Your task to perform on an android device: What is the news today? Image 0: 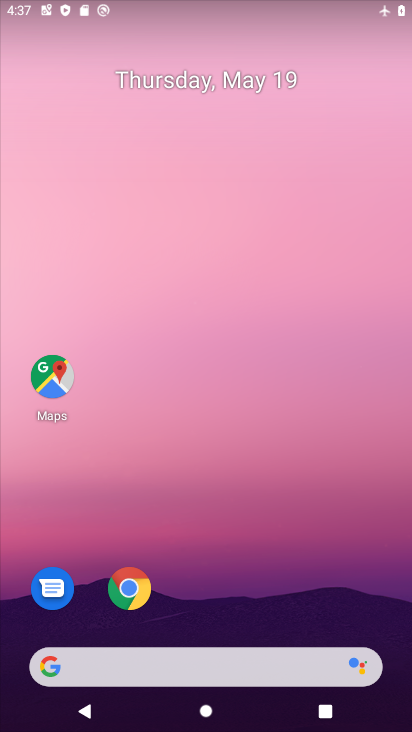
Step 0: click (164, 667)
Your task to perform on an android device: What is the news today? Image 1: 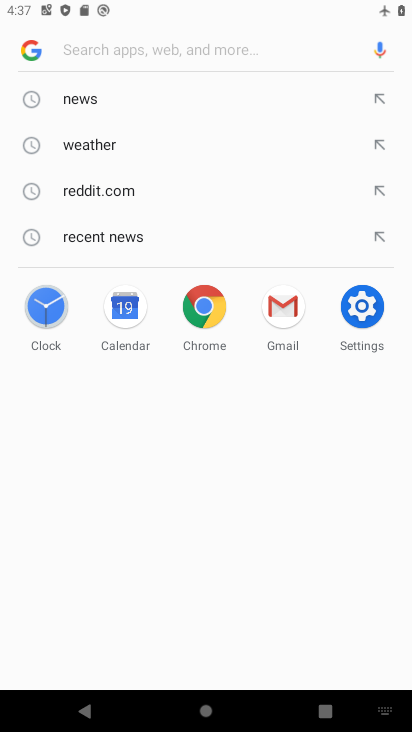
Step 1: type "news today ?"
Your task to perform on an android device: What is the news today? Image 2: 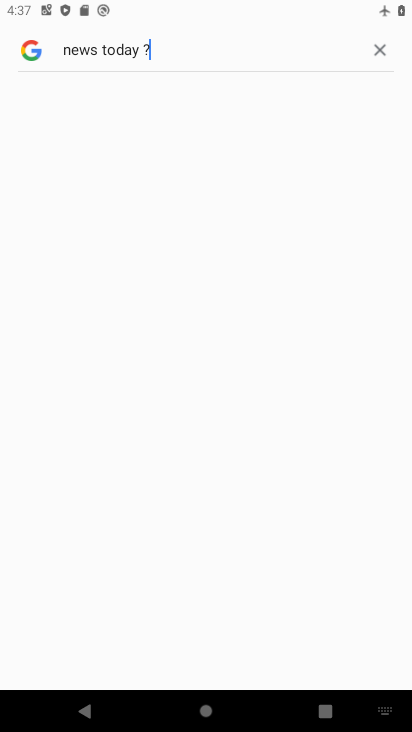
Step 2: click (279, 432)
Your task to perform on an android device: What is the news today? Image 3: 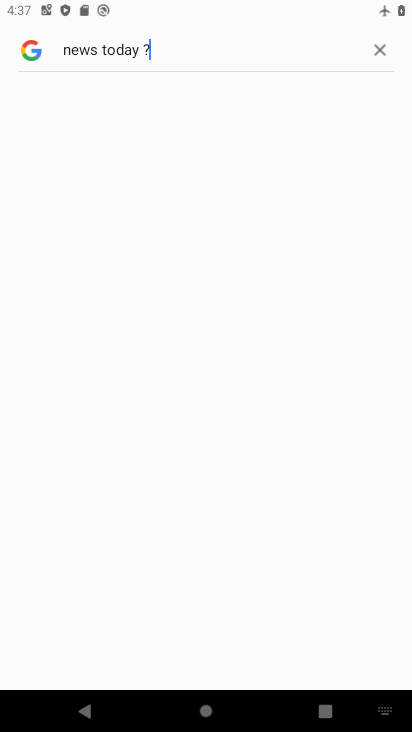
Step 3: task complete